Your task to perform on an android device: check data usage Image 0: 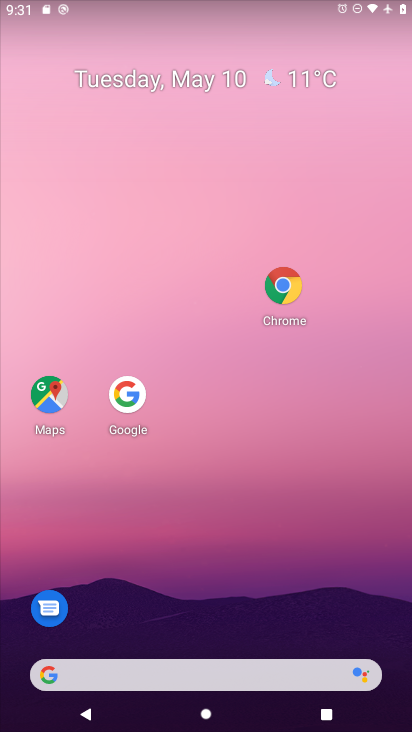
Step 0: drag from (203, 667) to (325, 168)
Your task to perform on an android device: check data usage Image 1: 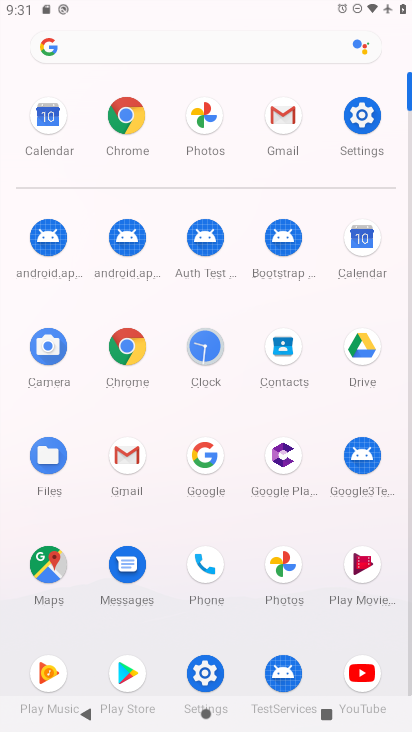
Step 1: click (371, 113)
Your task to perform on an android device: check data usage Image 2: 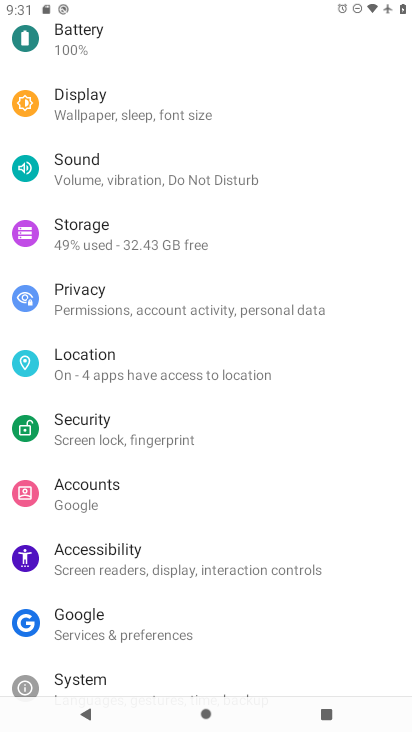
Step 2: drag from (282, 117) to (224, 477)
Your task to perform on an android device: check data usage Image 3: 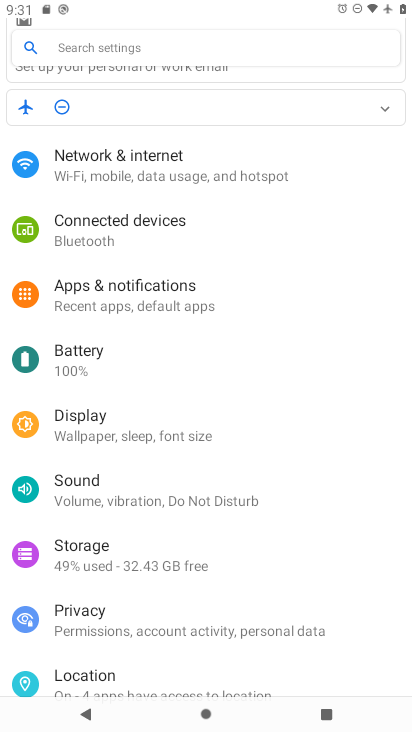
Step 3: click (167, 168)
Your task to perform on an android device: check data usage Image 4: 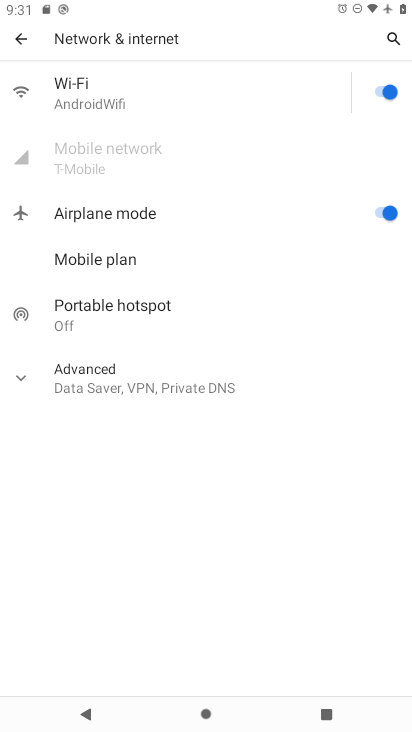
Step 4: click (105, 102)
Your task to perform on an android device: check data usage Image 5: 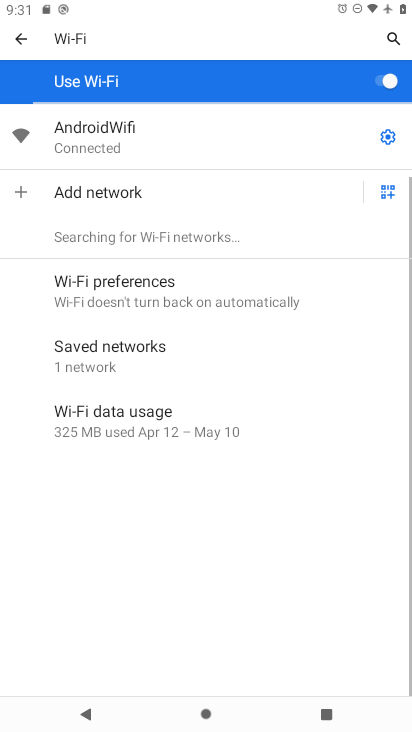
Step 5: click (118, 420)
Your task to perform on an android device: check data usage Image 6: 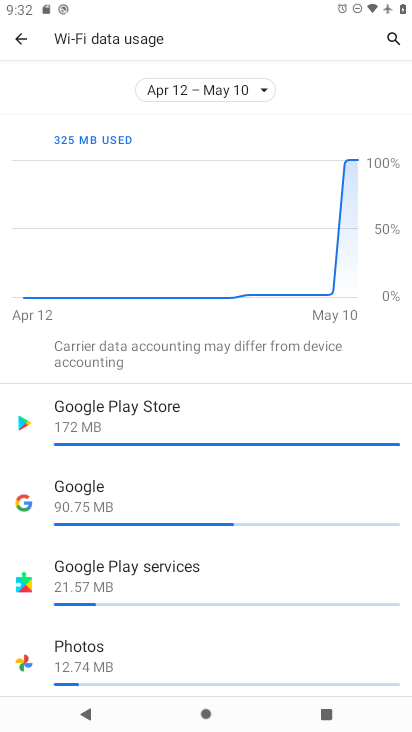
Step 6: task complete